Your task to perform on an android device: change your default location settings in chrome Image 0: 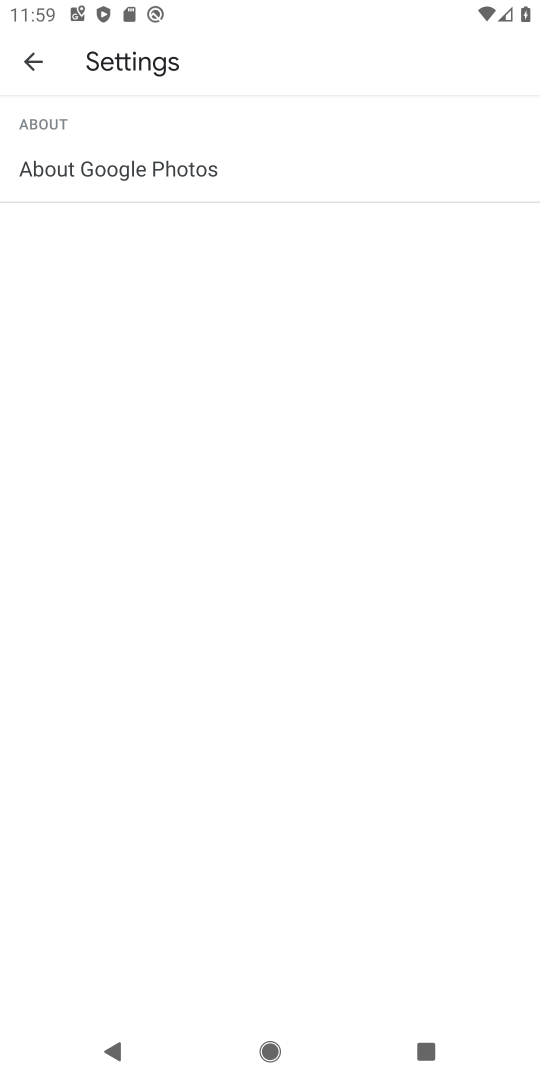
Step 0: press home button
Your task to perform on an android device: change your default location settings in chrome Image 1: 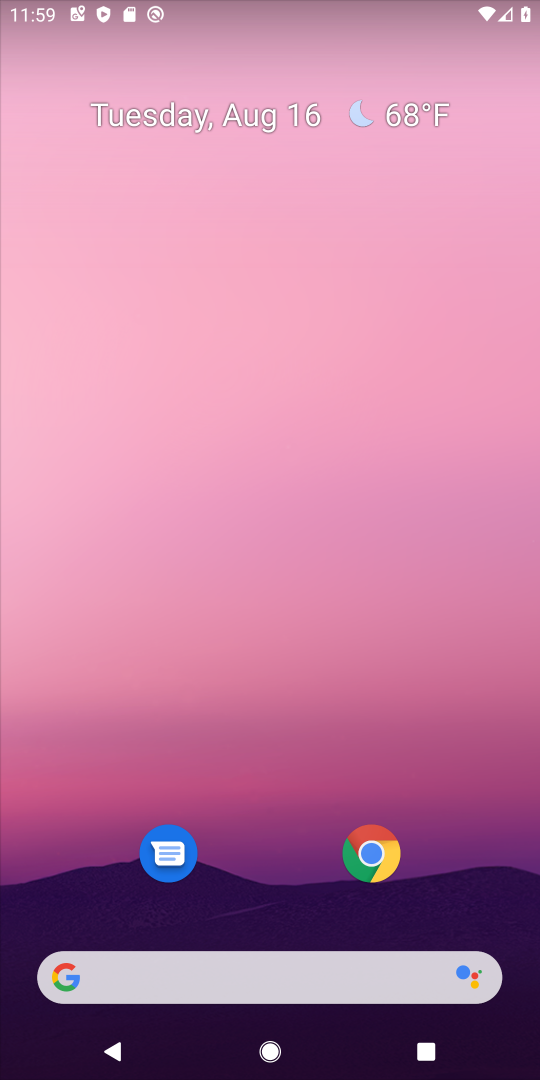
Step 1: click (368, 848)
Your task to perform on an android device: change your default location settings in chrome Image 2: 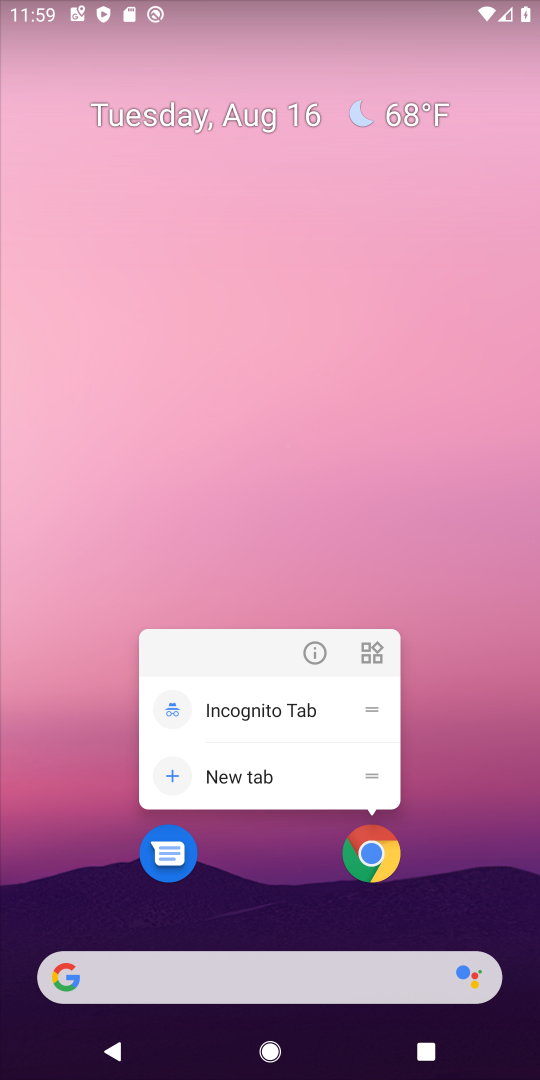
Step 2: click (348, 862)
Your task to perform on an android device: change your default location settings in chrome Image 3: 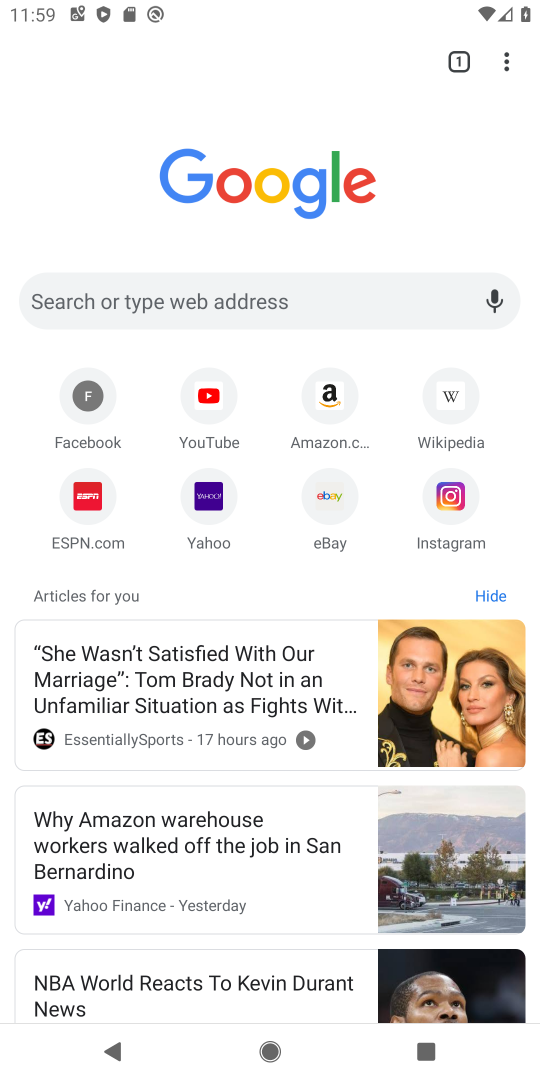
Step 3: click (501, 59)
Your task to perform on an android device: change your default location settings in chrome Image 4: 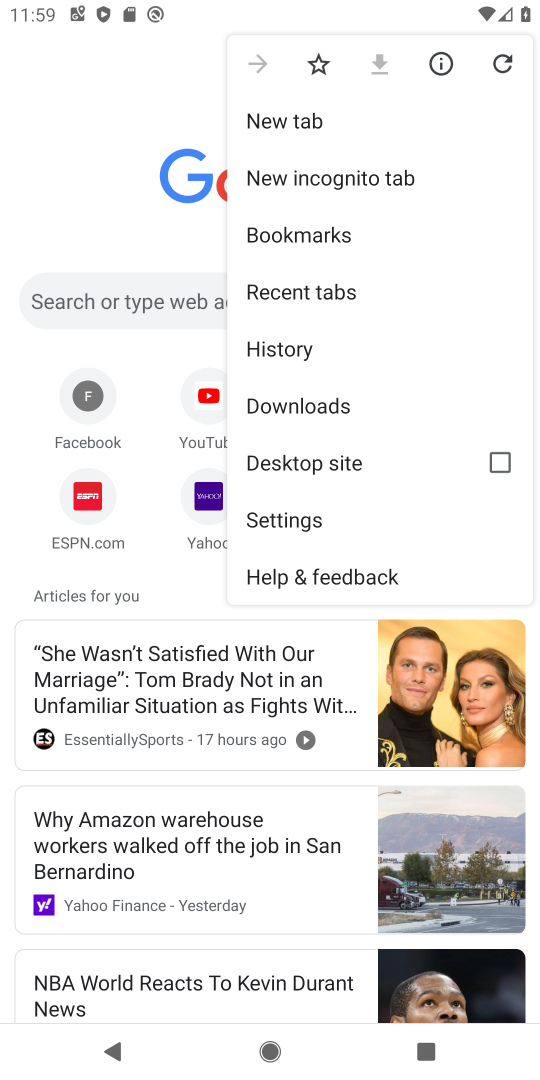
Step 4: click (293, 527)
Your task to perform on an android device: change your default location settings in chrome Image 5: 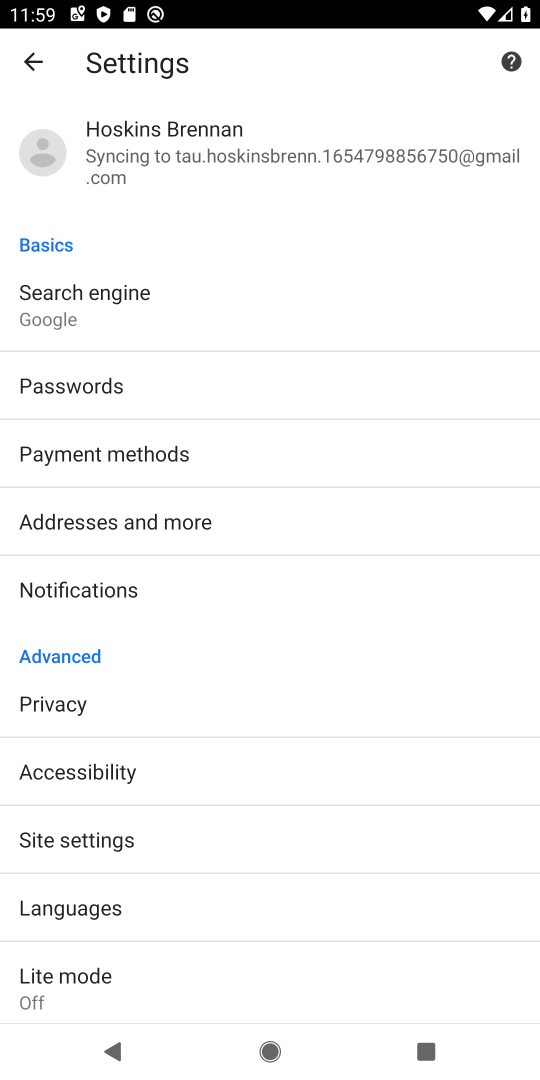
Step 5: click (53, 837)
Your task to perform on an android device: change your default location settings in chrome Image 6: 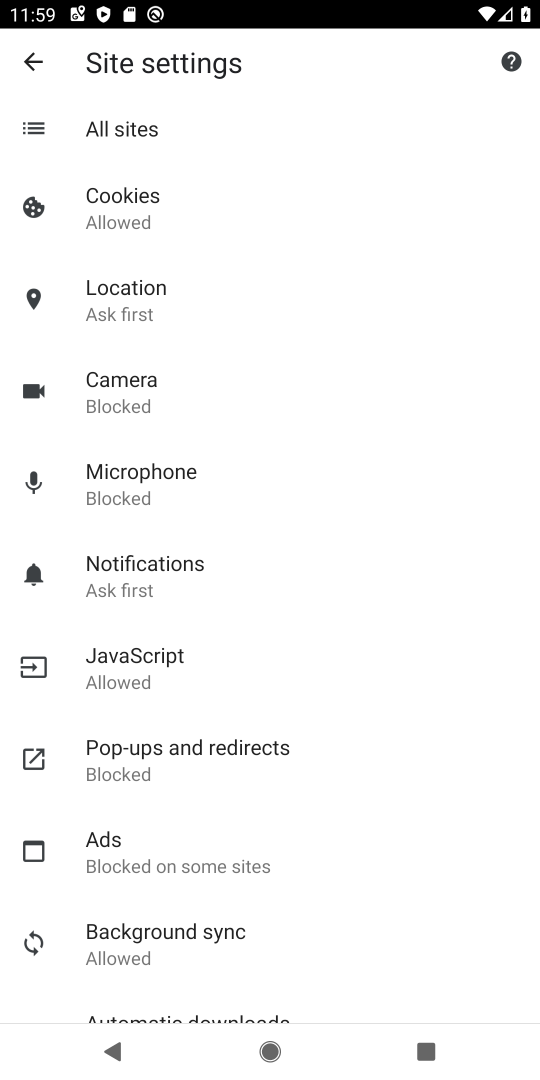
Step 6: click (80, 286)
Your task to perform on an android device: change your default location settings in chrome Image 7: 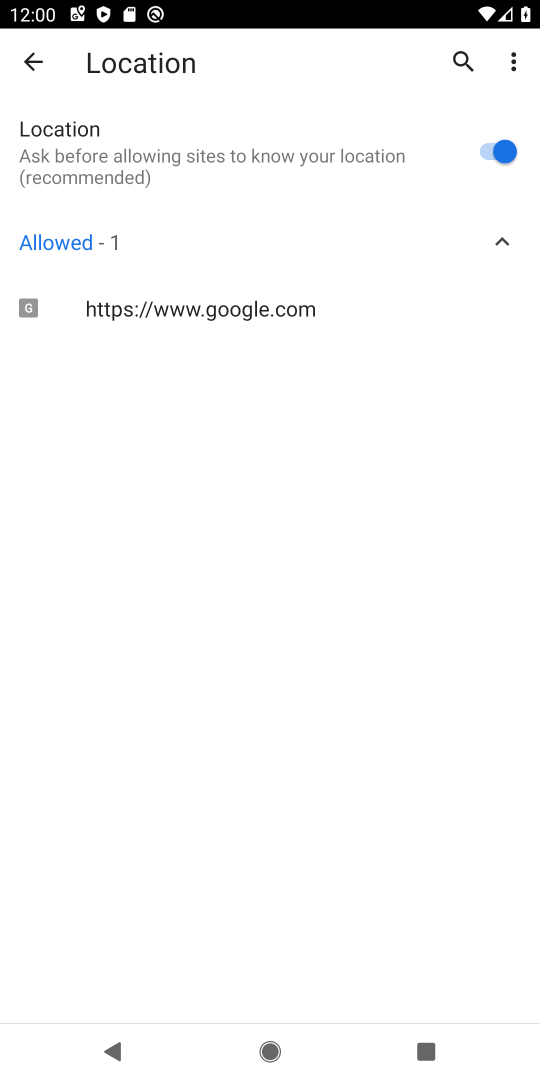
Step 7: click (481, 152)
Your task to perform on an android device: change your default location settings in chrome Image 8: 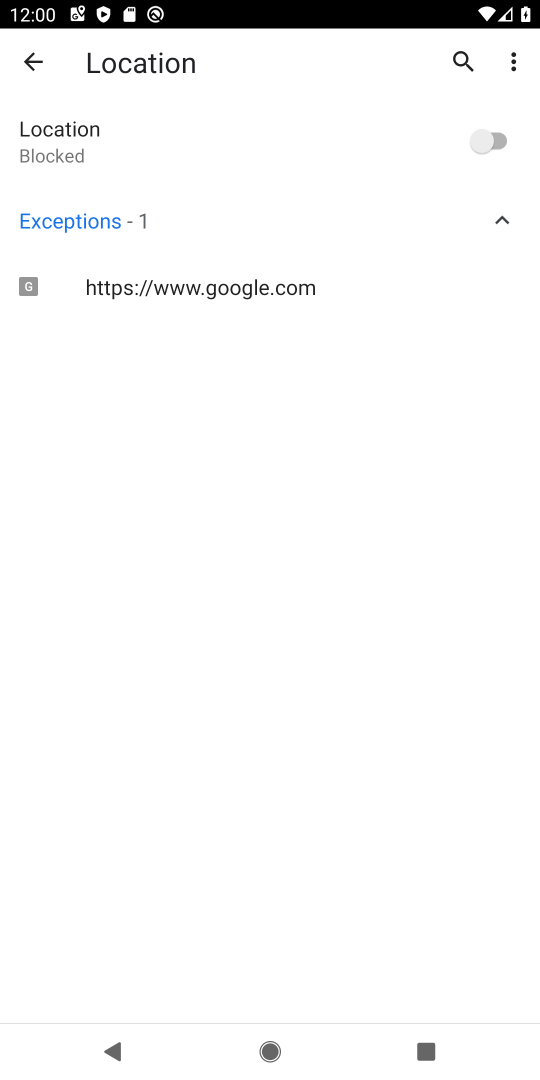
Step 8: task complete